Your task to perform on an android device: Search for vegetarian restaurants on Maps Image 0: 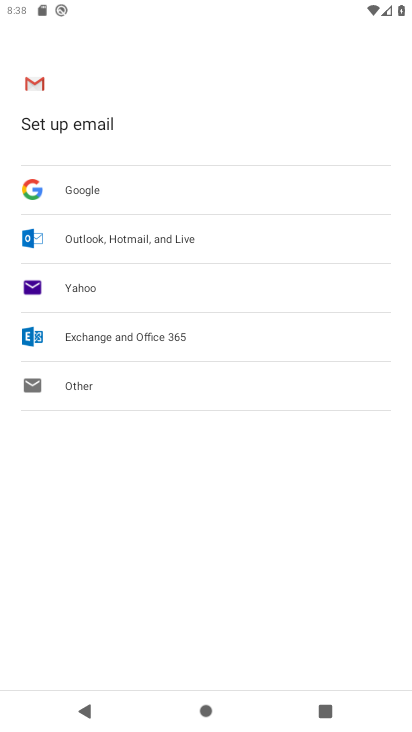
Step 0: press home button
Your task to perform on an android device: Search for vegetarian restaurants on Maps Image 1: 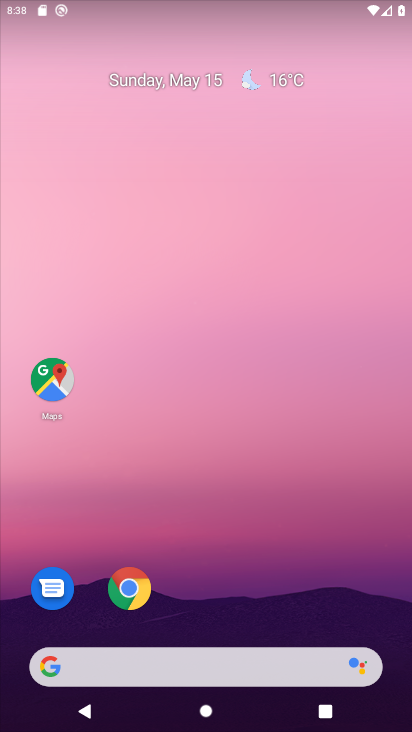
Step 1: click (51, 385)
Your task to perform on an android device: Search for vegetarian restaurants on Maps Image 2: 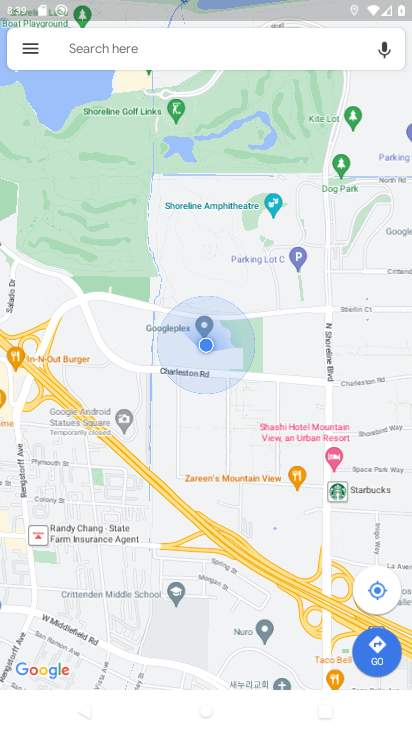
Step 2: click (166, 45)
Your task to perform on an android device: Search for vegetarian restaurants on Maps Image 3: 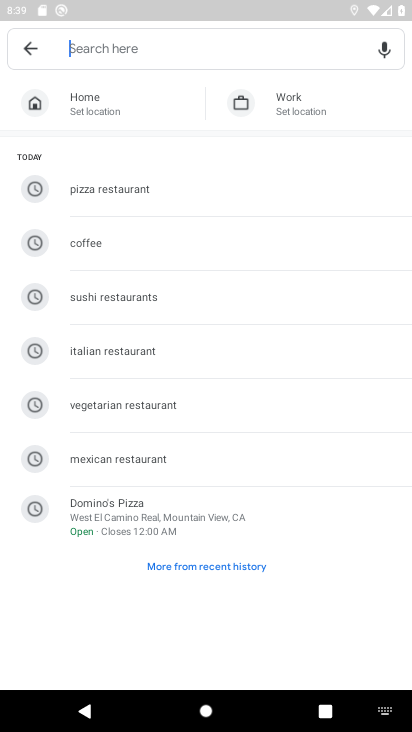
Step 3: click (145, 405)
Your task to perform on an android device: Search for vegetarian restaurants on Maps Image 4: 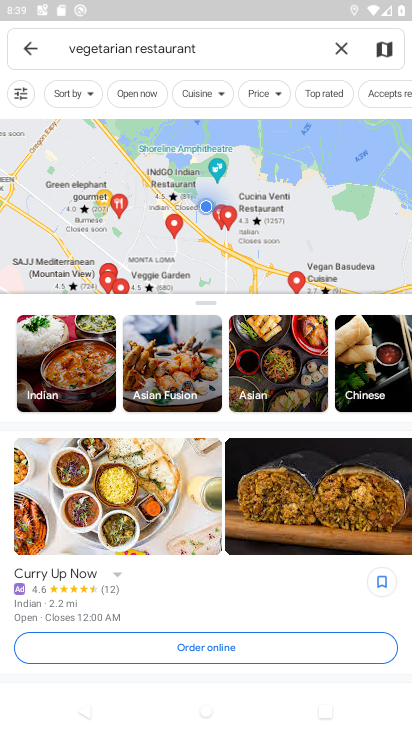
Step 4: task complete